Your task to perform on an android device: Go to location settings Image 0: 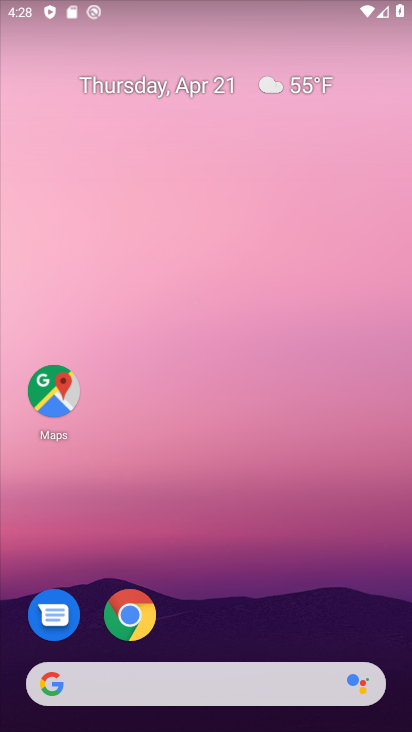
Step 0: drag from (241, 476) to (242, 174)
Your task to perform on an android device: Go to location settings Image 1: 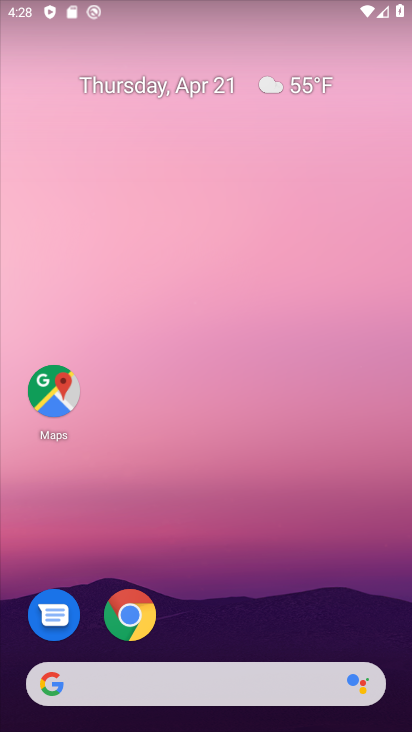
Step 1: drag from (205, 645) to (189, 119)
Your task to perform on an android device: Go to location settings Image 2: 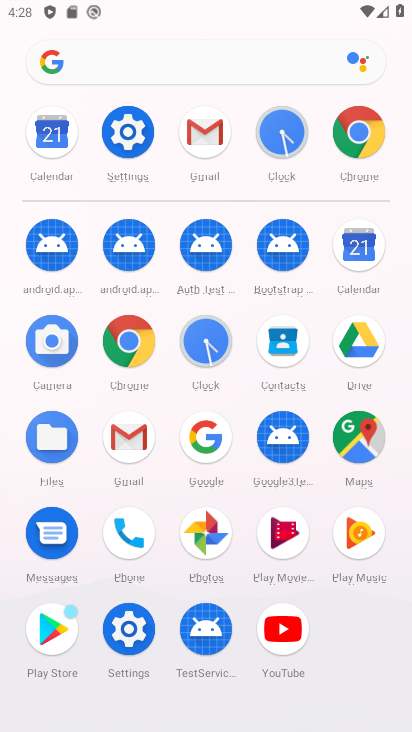
Step 2: click (122, 114)
Your task to perform on an android device: Go to location settings Image 3: 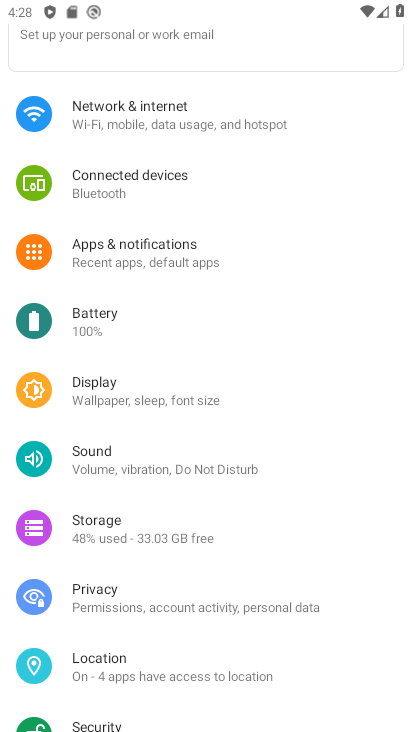
Step 3: click (158, 667)
Your task to perform on an android device: Go to location settings Image 4: 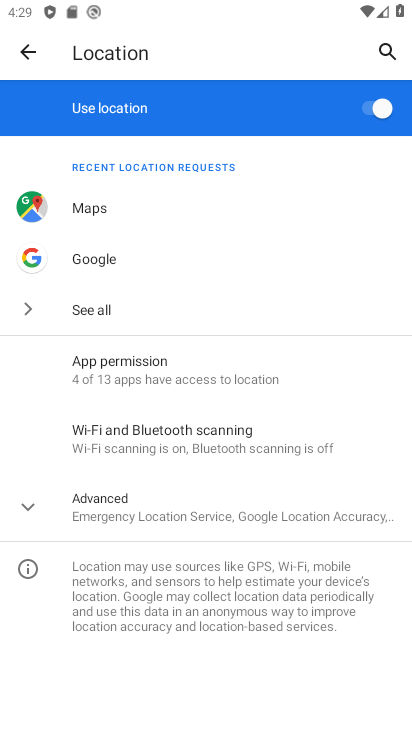
Step 4: task complete